Your task to perform on an android device: What's the weather going to be this weekend? Image 0: 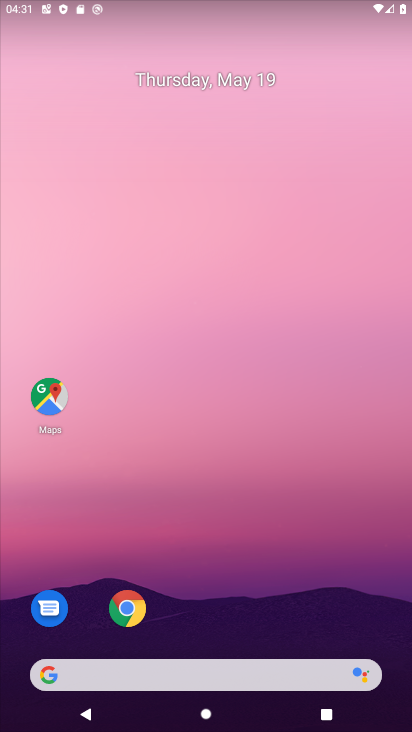
Step 0: drag from (180, 456) to (159, 84)
Your task to perform on an android device: What's the weather going to be this weekend? Image 1: 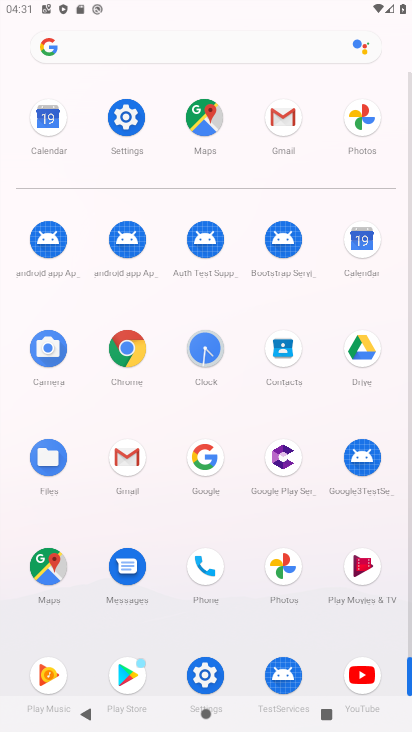
Step 1: click (202, 455)
Your task to perform on an android device: What's the weather going to be this weekend? Image 2: 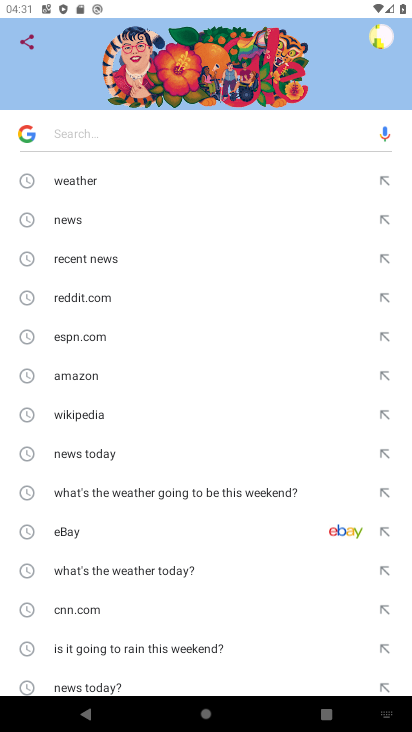
Step 2: click (99, 120)
Your task to perform on an android device: What's the weather going to be this weekend? Image 3: 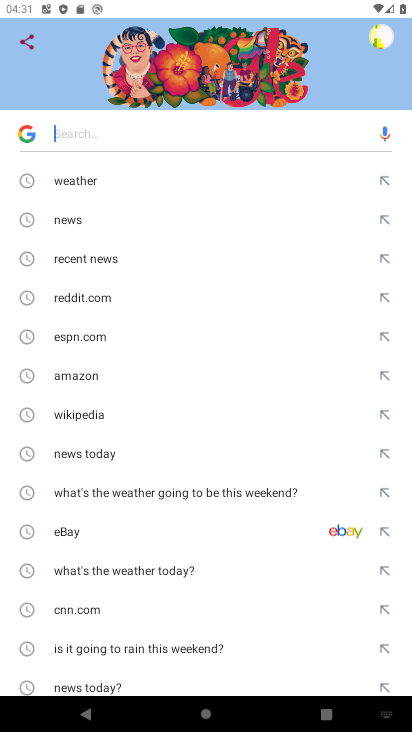
Step 3: type "What's the weather going to be this weekend?"
Your task to perform on an android device: What's the weather going to be this weekend? Image 4: 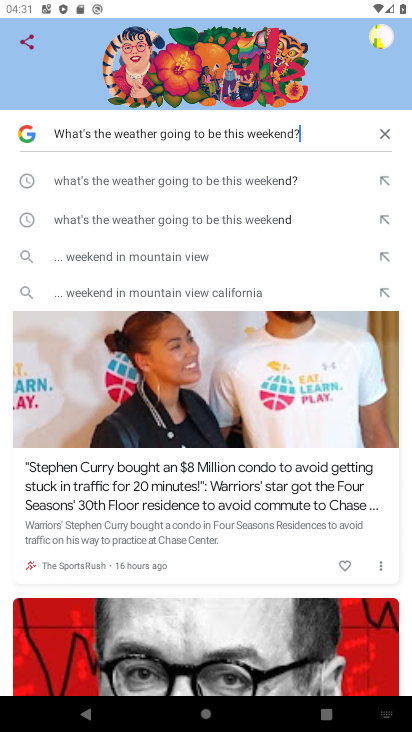
Step 4: type ""
Your task to perform on an android device: What's the weather going to be this weekend? Image 5: 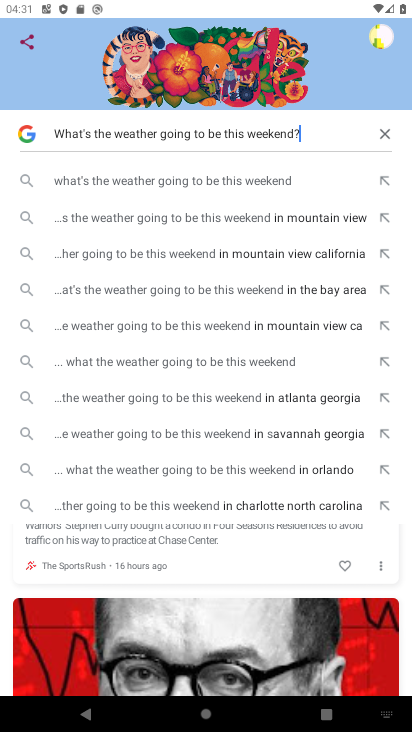
Step 5: click (220, 182)
Your task to perform on an android device: What's the weather going to be this weekend? Image 6: 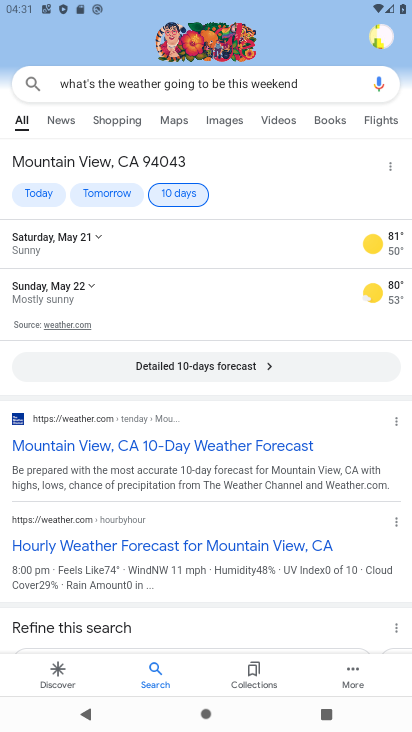
Step 6: task complete